Your task to perform on an android device: manage bookmarks in the chrome app Image 0: 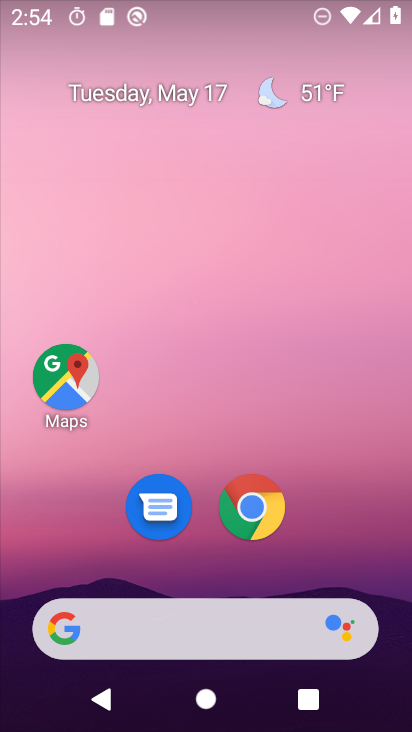
Step 0: click (251, 509)
Your task to perform on an android device: manage bookmarks in the chrome app Image 1: 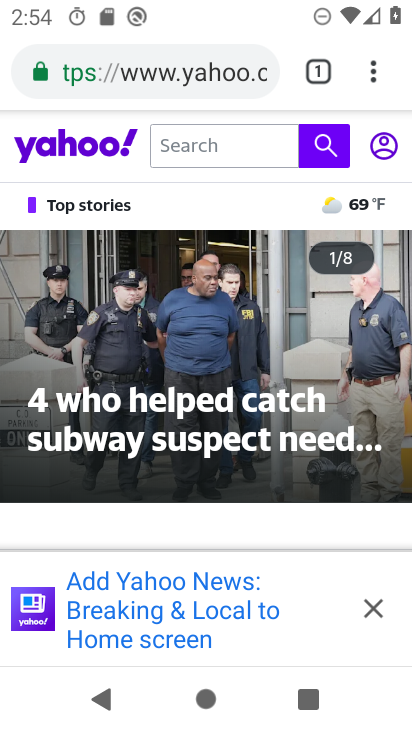
Step 1: click (365, 74)
Your task to perform on an android device: manage bookmarks in the chrome app Image 2: 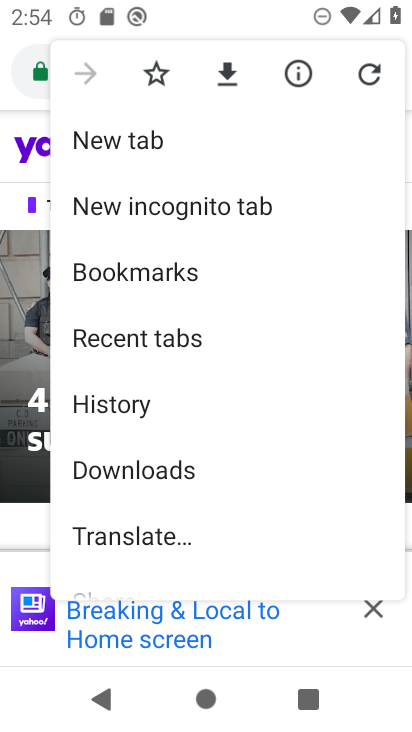
Step 2: click (217, 278)
Your task to perform on an android device: manage bookmarks in the chrome app Image 3: 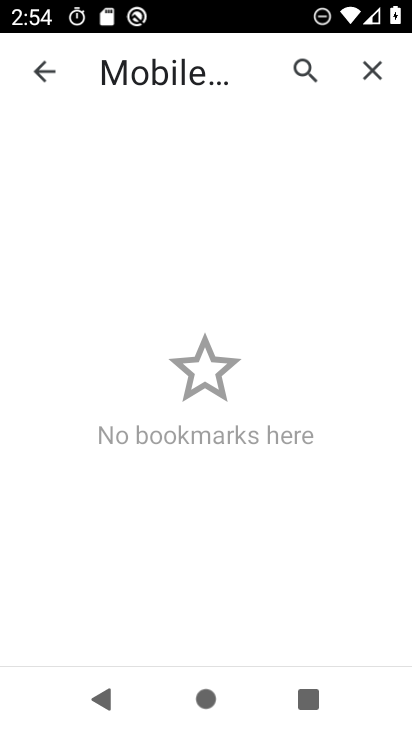
Step 3: task complete